Your task to perform on an android device: all mails in gmail Image 0: 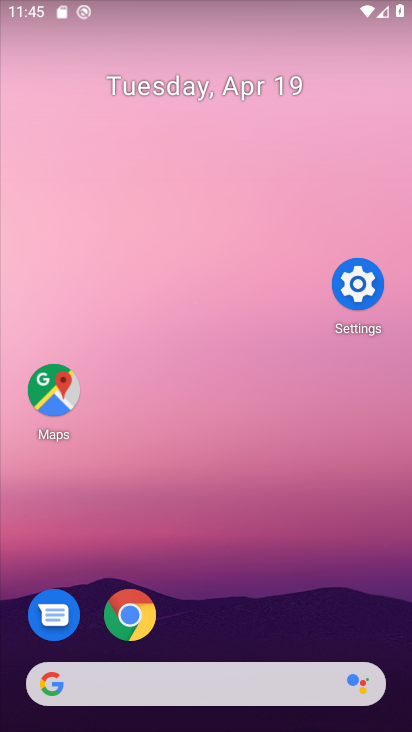
Step 0: drag from (175, 614) to (321, 152)
Your task to perform on an android device: all mails in gmail Image 1: 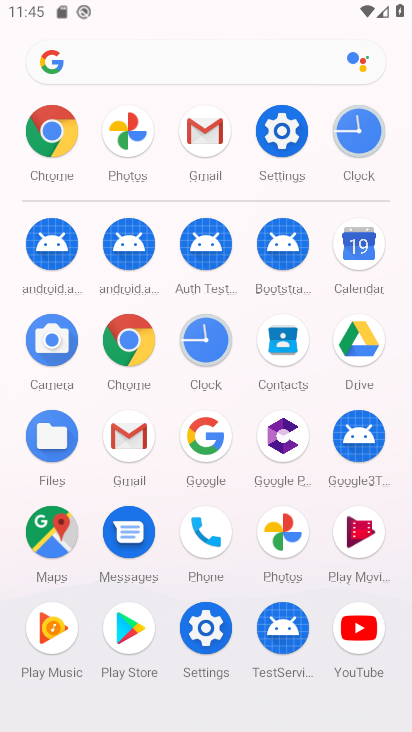
Step 1: click (138, 428)
Your task to perform on an android device: all mails in gmail Image 2: 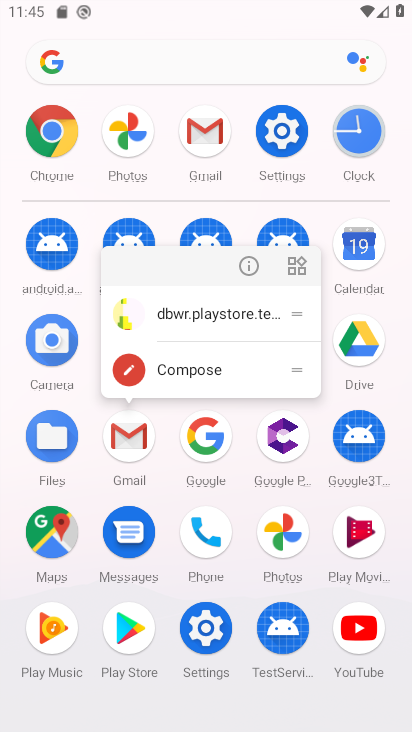
Step 2: click (242, 268)
Your task to perform on an android device: all mails in gmail Image 3: 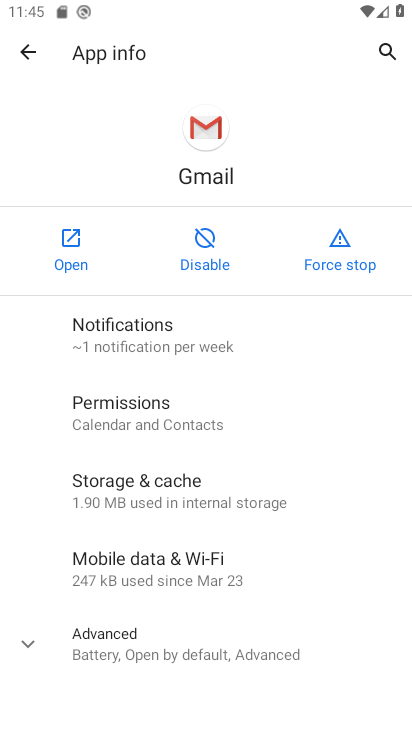
Step 3: click (54, 274)
Your task to perform on an android device: all mails in gmail Image 4: 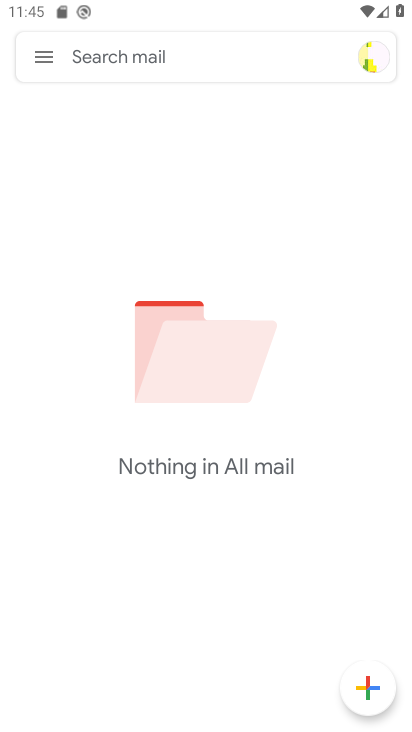
Step 4: click (45, 62)
Your task to perform on an android device: all mails in gmail Image 5: 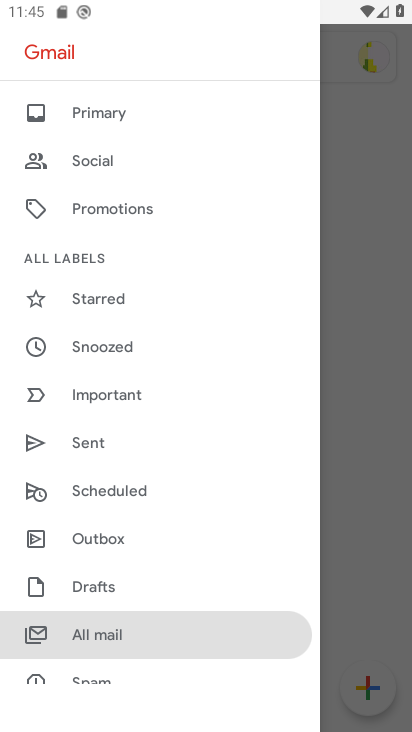
Step 5: click (134, 634)
Your task to perform on an android device: all mails in gmail Image 6: 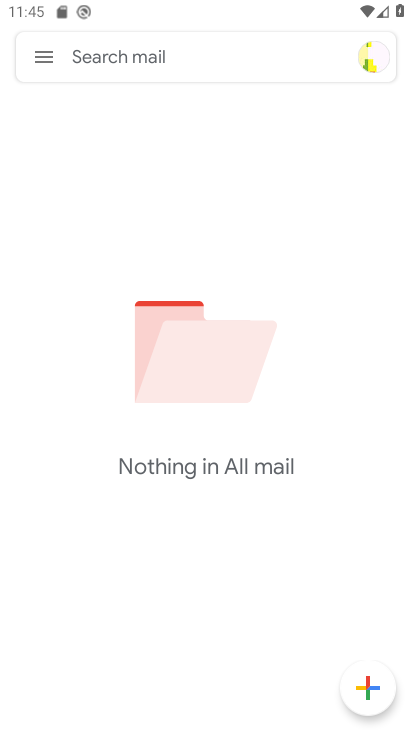
Step 6: task complete